Your task to perform on an android device: turn off airplane mode Image 0: 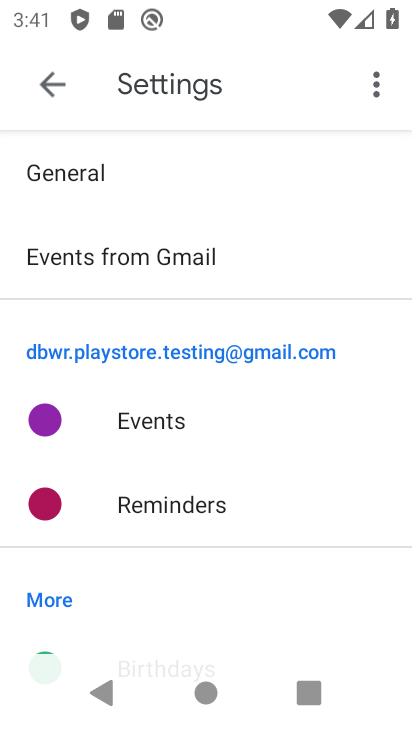
Step 0: press home button
Your task to perform on an android device: turn off airplane mode Image 1: 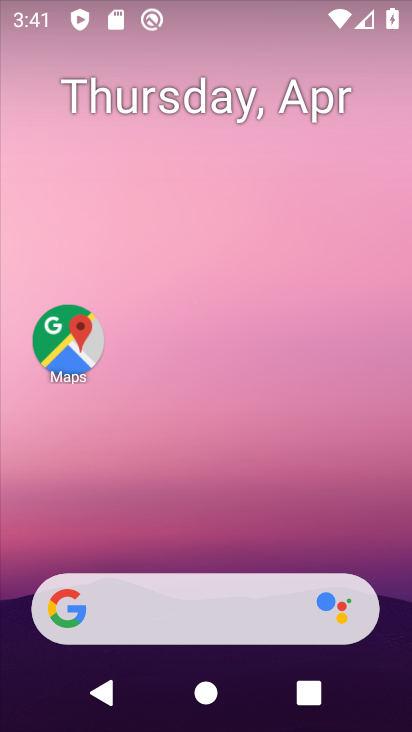
Step 1: drag from (207, 584) to (198, 115)
Your task to perform on an android device: turn off airplane mode Image 2: 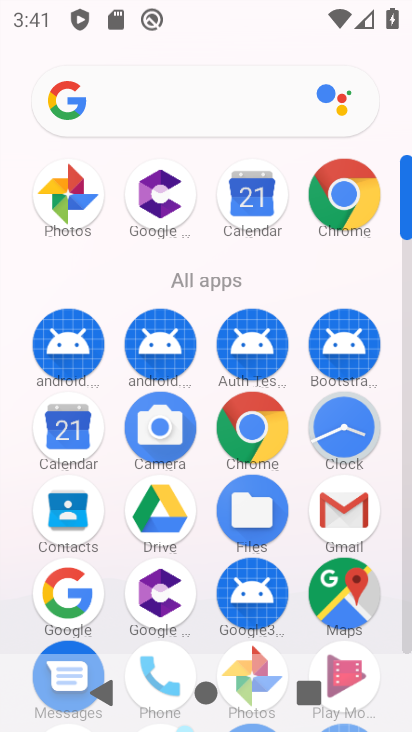
Step 2: drag from (211, 635) to (176, 203)
Your task to perform on an android device: turn off airplane mode Image 3: 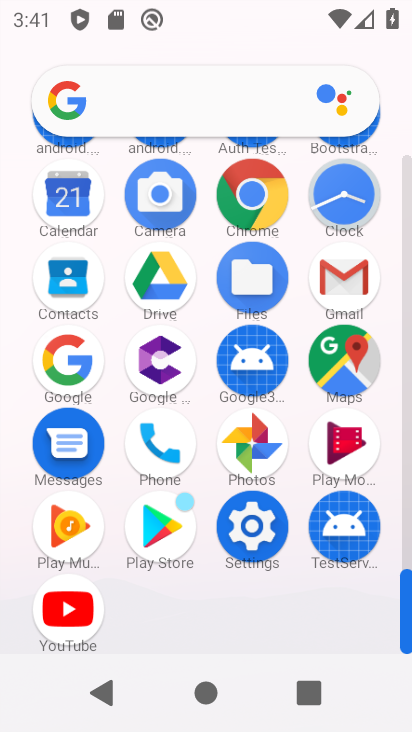
Step 3: click (254, 532)
Your task to perform on an android device: turn off airplane mode Image 4: 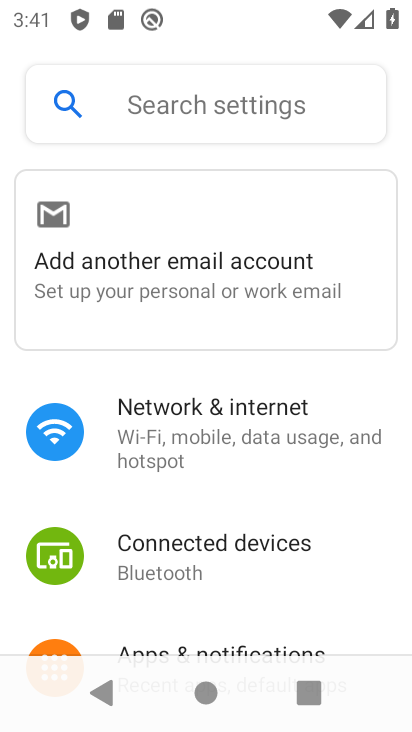
Step 4: click (189, 431)
Your task to perform on an android device: turn off airplane mode Image 5: 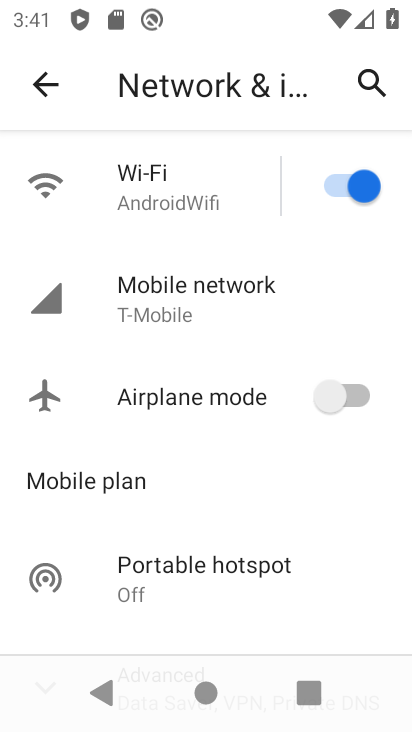
Step 5: task complete